Your task to perform on an android device: check battery use Image 0: 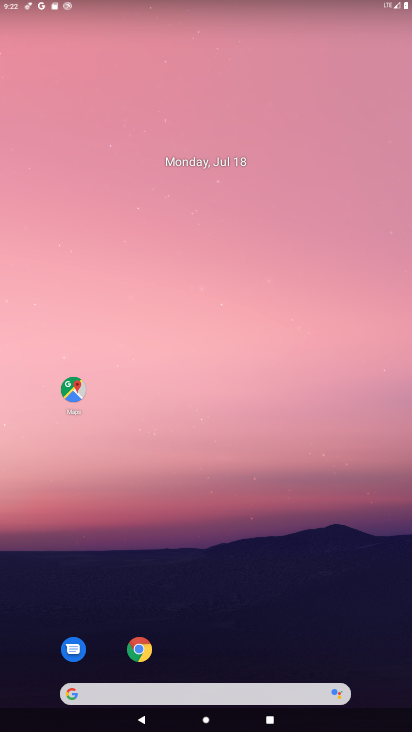
Step 0: drag from (169, 665) to (227, 174)
Your task to perform on an android device: check battery use Image 1: 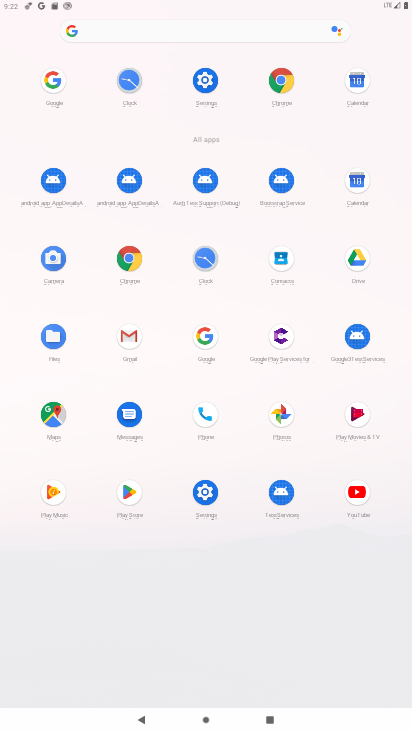
Step 1: click (207, 82)
Your task to perform on an android device: check battery use Image 2: 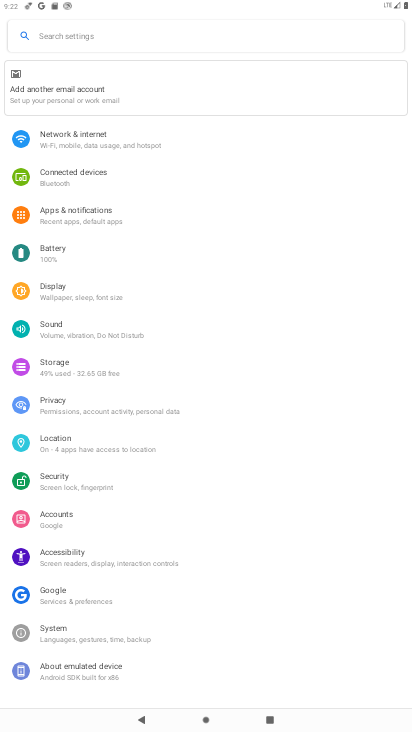
Step 2: click (65, 254)
Your task to perform on an android device: check battery use Image 3: 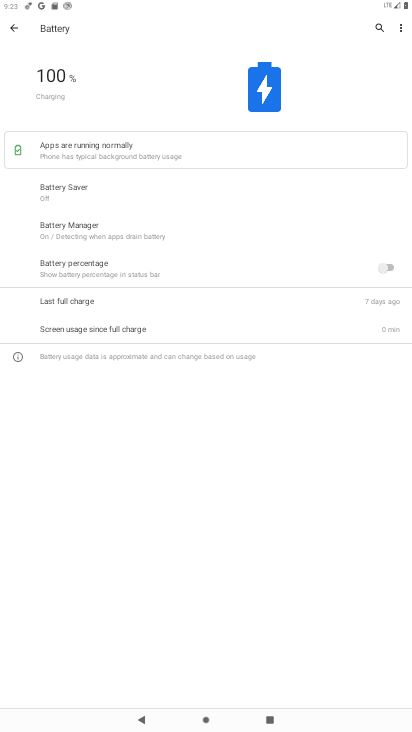
Step 3: click (400, 26)
Your task to perform on an android device: check battery use Image 4: 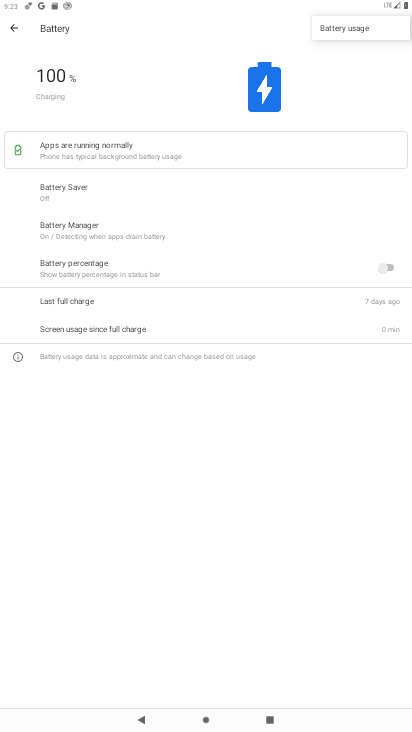
Step 4: click (337, 21)
Your task to perform on an android device: check battery use Image 5: 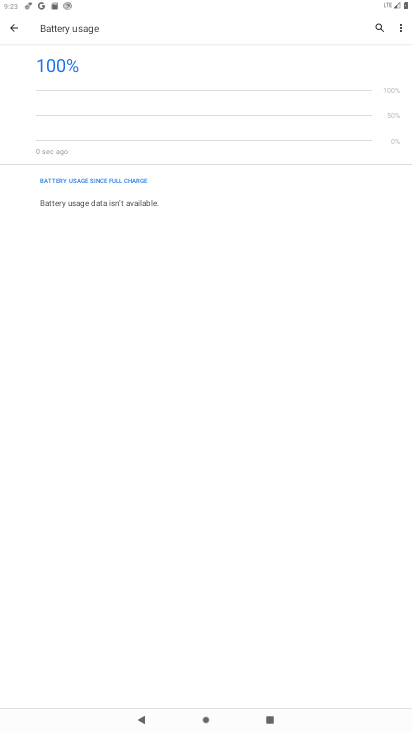
Step 5: task complete